Your task to perform on an android device: Open Maps and search for coffee Image 0: 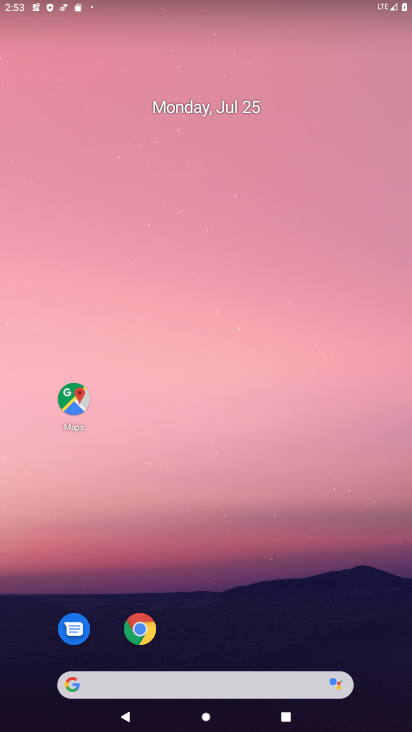
Step 0: drag from (204, 259) to (272, 67)
Your task to perform on an android device: Open Maps and search for coffee Image 1: 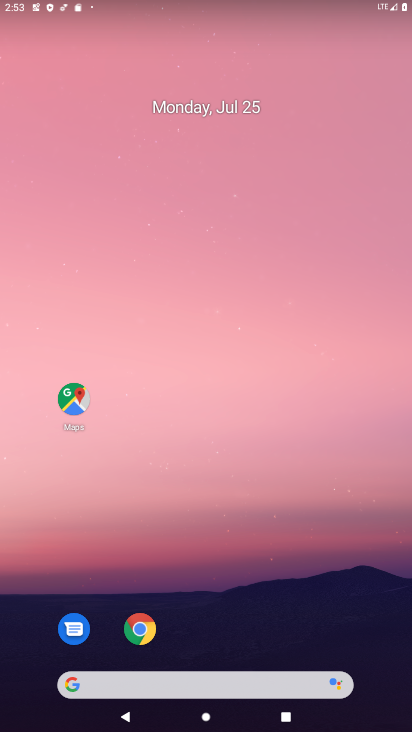
Step 1: drag from (209, 516) to (285, 91)
Your task to perform on an android device: Open Maps and search for coffee Image 2: 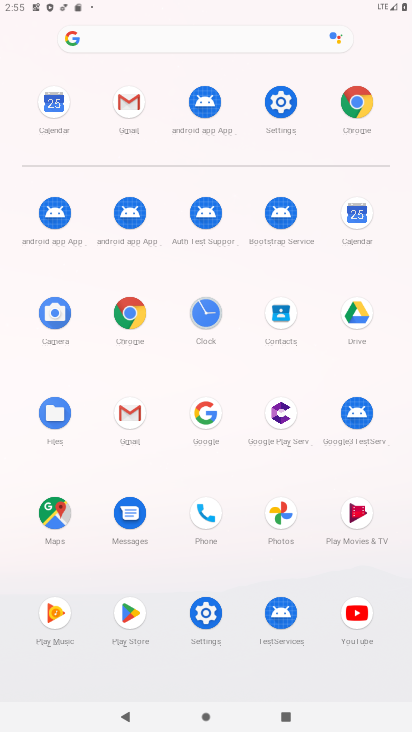
Step 2: click (53, 505)
Your task to perform on an android device: Open Maps and search for coffee Image 3: 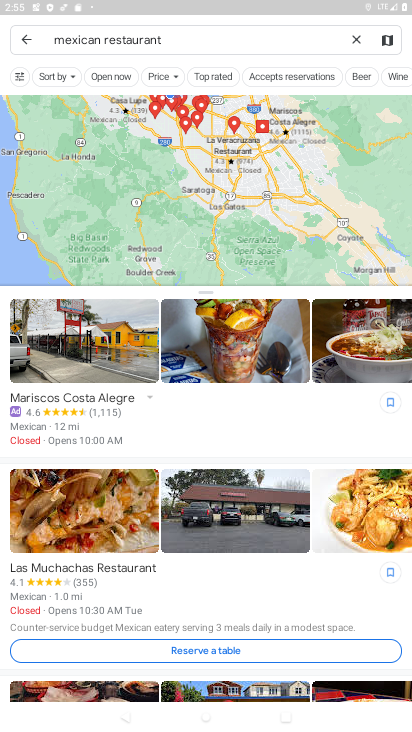
Step 3: click (351, 39)
Your task to perform on an android device: Open Maps and search for coffee Image 4: 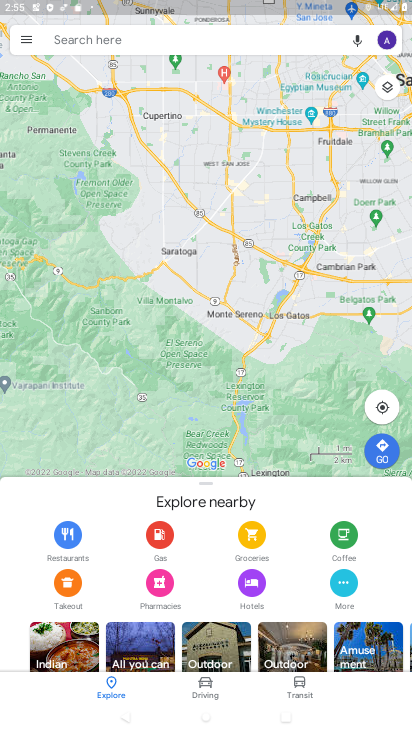
Step 4: click (141, 37)
Your task to perform on an android device: Open Maps and search for coffee Image 5: 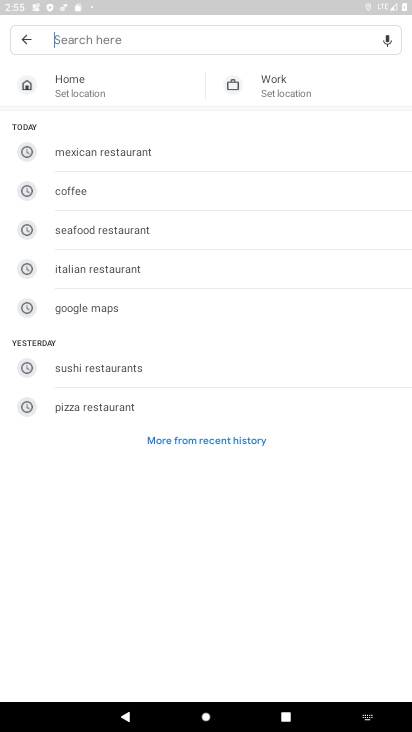
Step 5: click (119, 200)
Your task to perform on an android device: Open Maps and search for coffee Image 6: 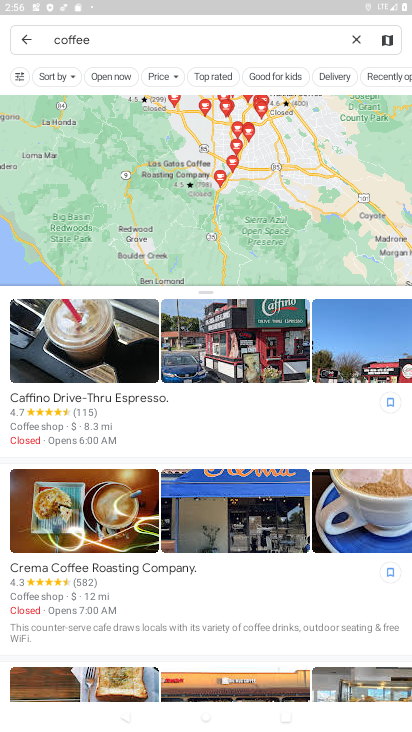
Step 6: task complete